Your task to perform on an android device: move a message to another label in the gmail app Image 0: 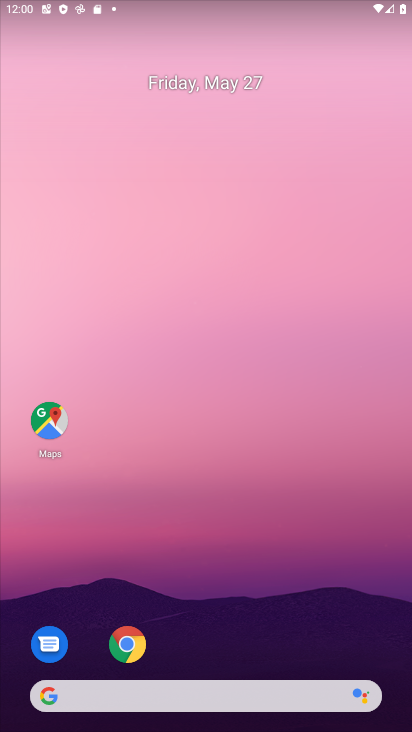
Step 0: drag from (353, 641) to (303, 37)
Your task to perform on an android device: move a message to another label in the gmail app Image 1: 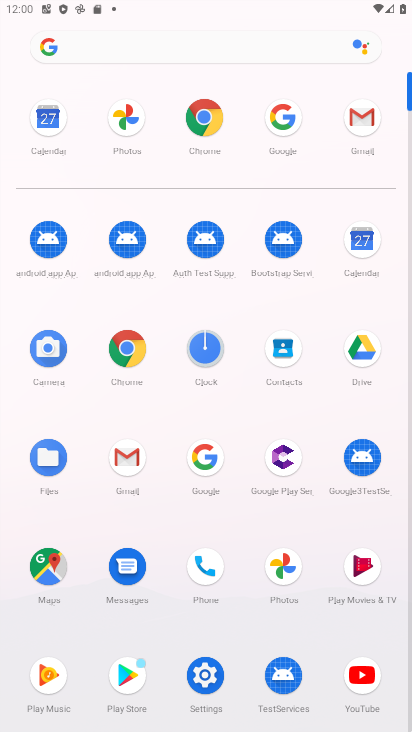
Step 1: click (111, 463)
Your task to perform on an android device: move a message to another label in the gmail app Image 2: 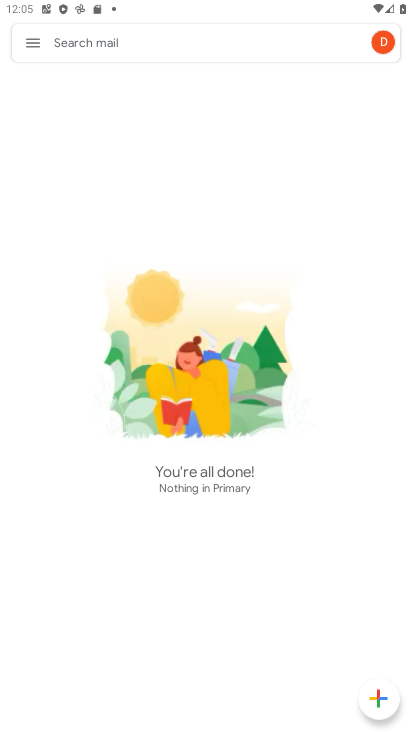
Step 2: task complete